Your task to perform on an android device: What is the news today? Image 0: 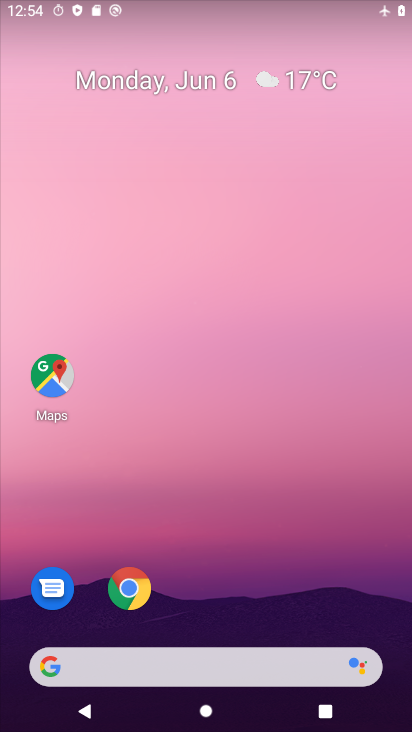
Step 0: drag from (264, 528) to (277, 51)
Your task to perform on an android device: What is the news today? Image 1: 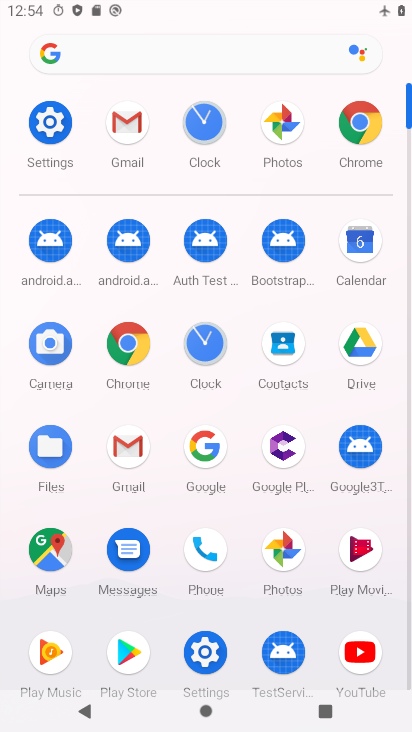
Step 1: click (358, 127)
Your task to perform on an android device: What is the news today? Image 2: 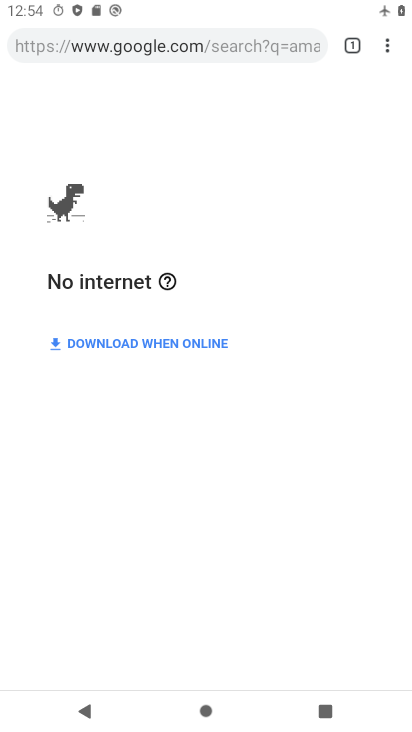
Step 2: click (250, 49)
Your task to perform on an android device: What is the news today? Image 3: 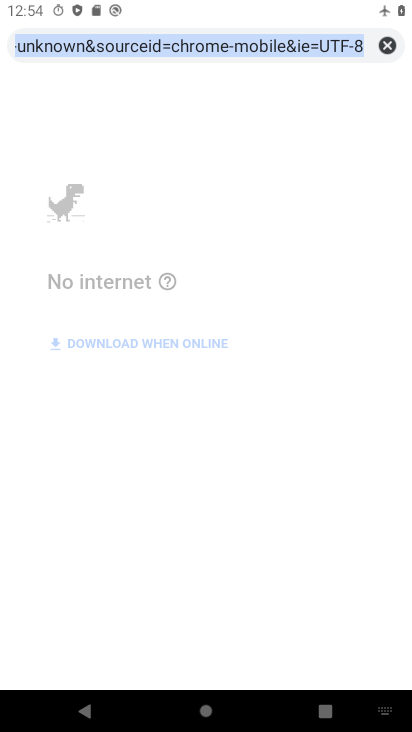
Step 3: type "news"
Your task to perform on an android device: What is the news today? Image 4: 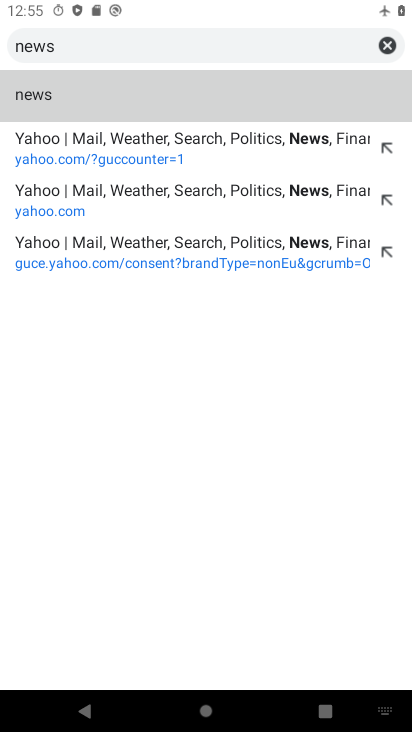
Step 4: click (28, 93)
Your task to perform on an android device: What is the news today? Image 5: 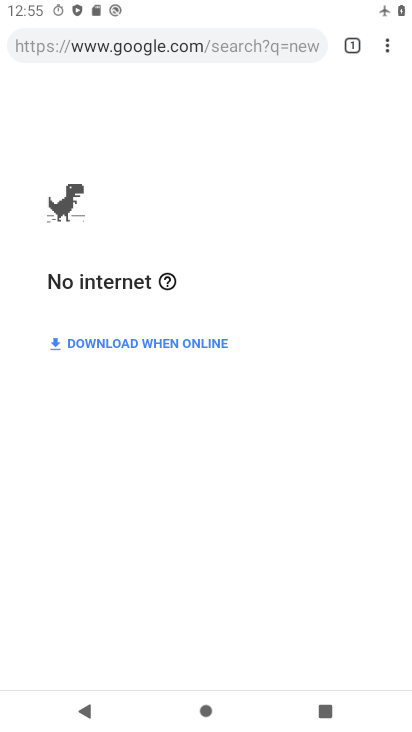
Step 5: task complete